Your task to perform on an android device: check data usage Image 0: 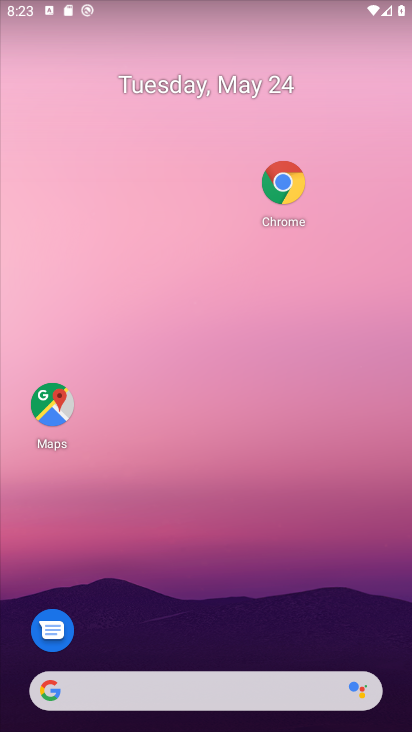
Step 0: drag from (238, 701) to (141, 87)
Your task to perform on an android device: check data usage Image 1: 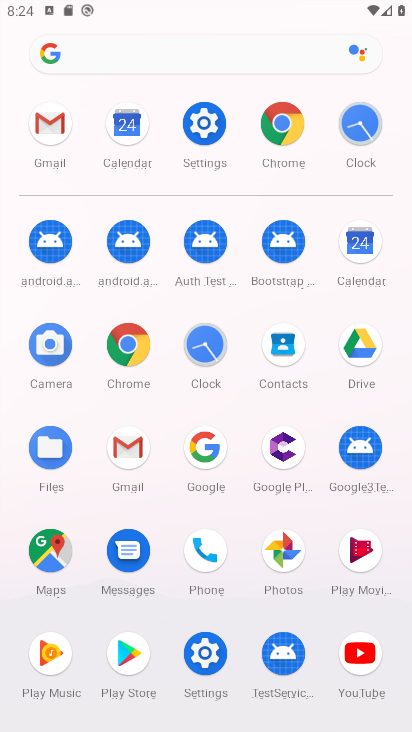
Step 1: click (201, 136)
Your task to perform on an android device: check data usage Image 2: 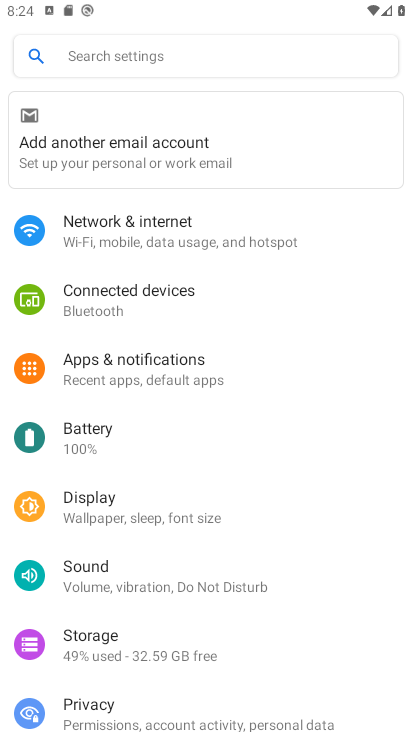
Step 2: click (133, 55)
Your task to perform on an android device: check data usage Image 3: 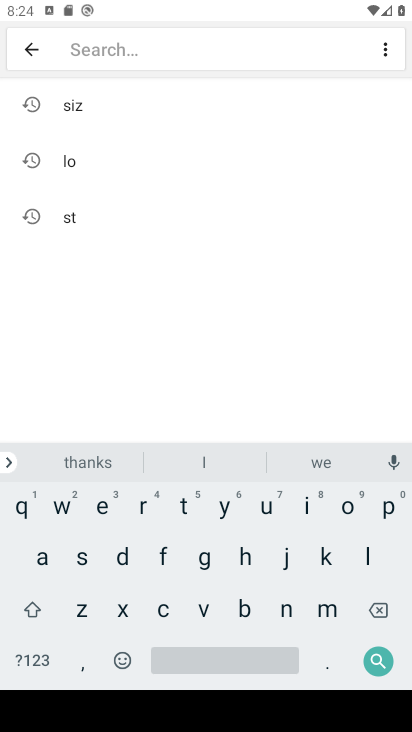
Step 3: click (124, 560)
Your task to perform on an android device: check data usage Image 4: 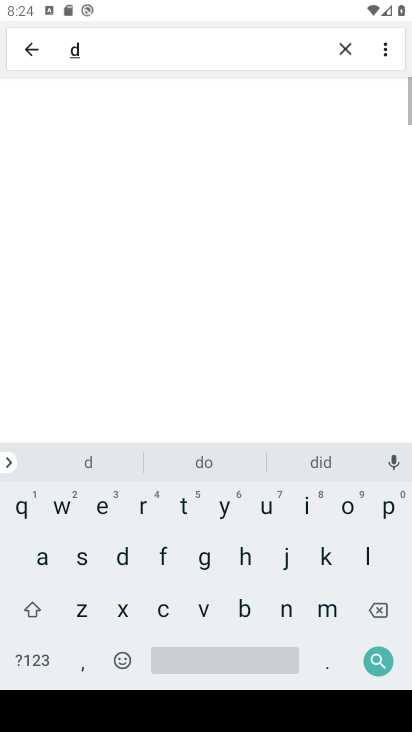
Step 4: click (41, 555)
Your task to perform on an android device: check data usage Image 5: 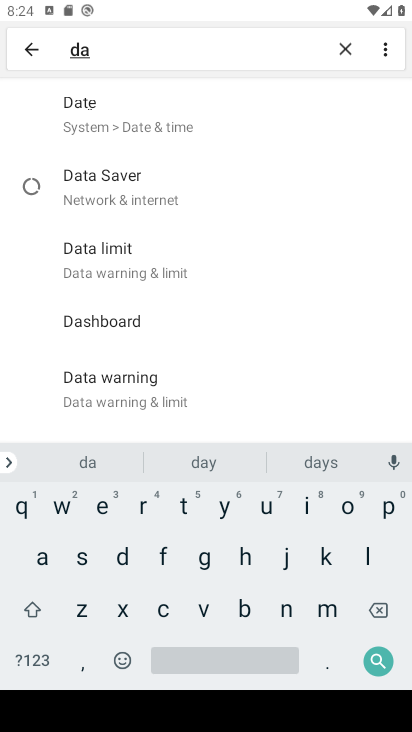
Step 5: click (175, 511)
Your task to perform on an android device: check data usage Image 6: 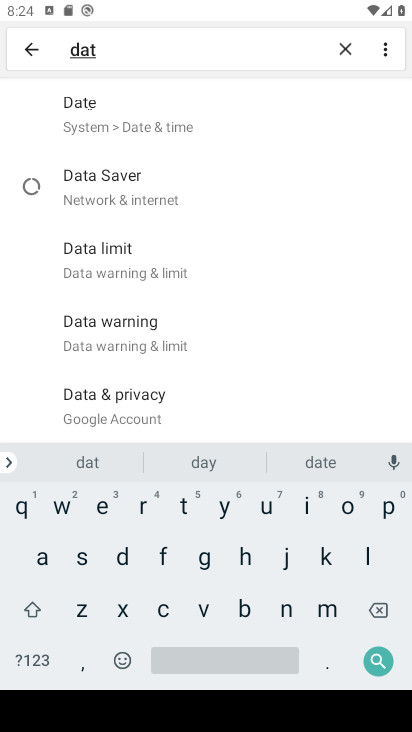
Step 6: click (35, 557)
Your task to perform on an android device: check data usage Image 7: 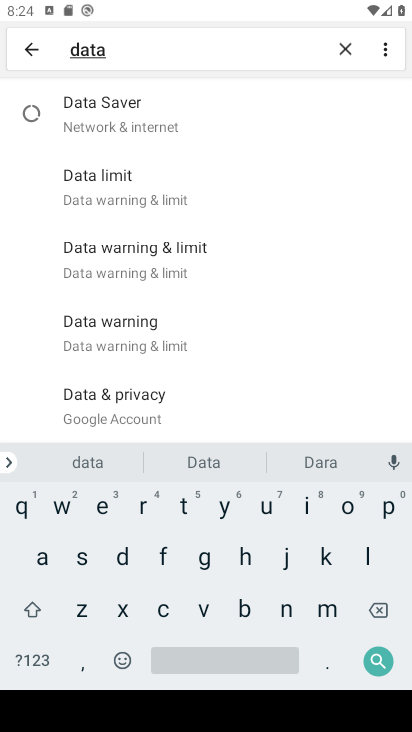
Step 7: click (208, 664)
Your task to perform on an android device: check data usage Image 8: 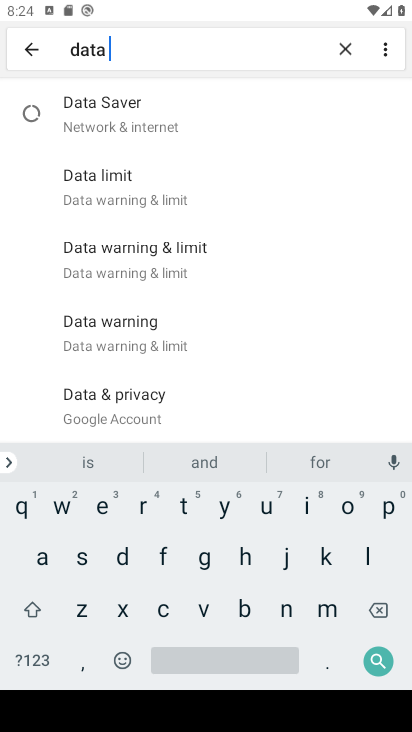
Step 8: click (254, 511)
Your task to perform on an android device: check data usage Image 9: 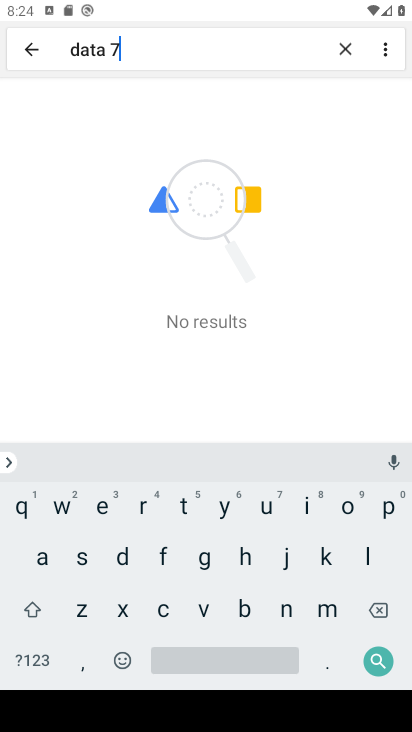
Step 9: click (381, 610)
Your task to perform on an android device: check data usage Image 10: 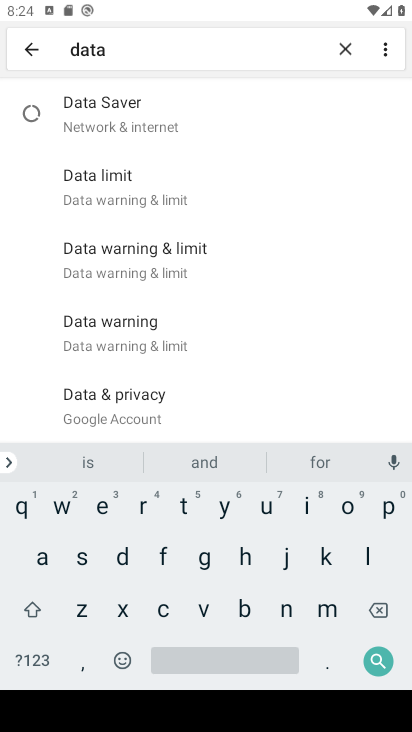
Step 10: click (263, 512)
Your task to perform on an android device: check data usage Image 11: 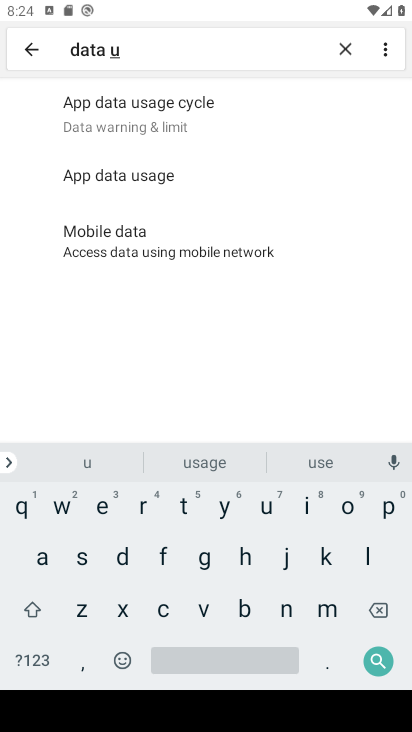
Step 11: click (108, 163)
Your task to perform on an android device: check data usage Image 12: 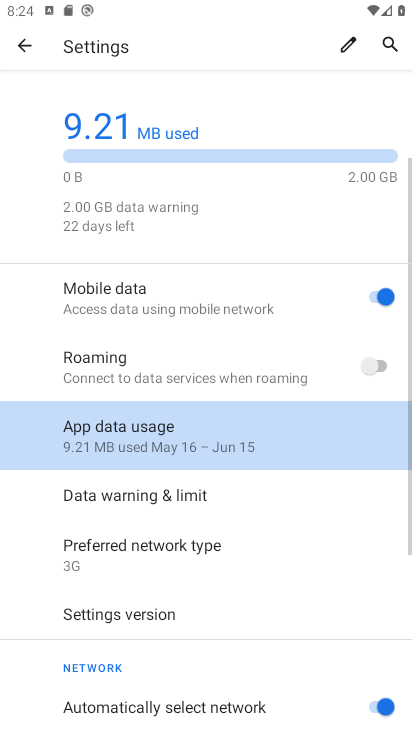
Step 12: click (190, 427)
Your task to perform on an android device: check data usage Image 13: 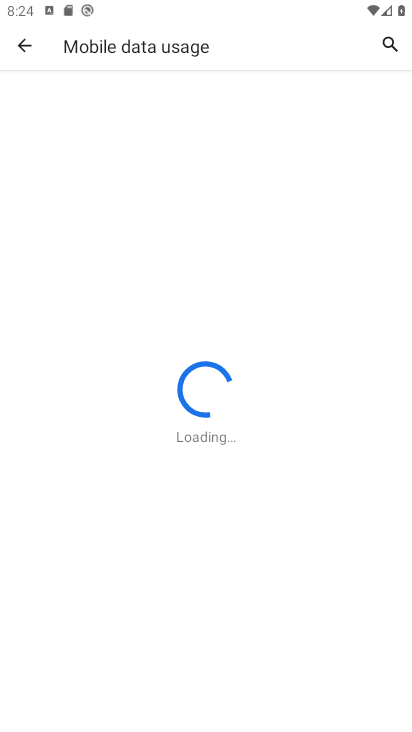
Step 13: task complete